Your task to perform on an android device: turn on the 24-hour format for clock Image 0: 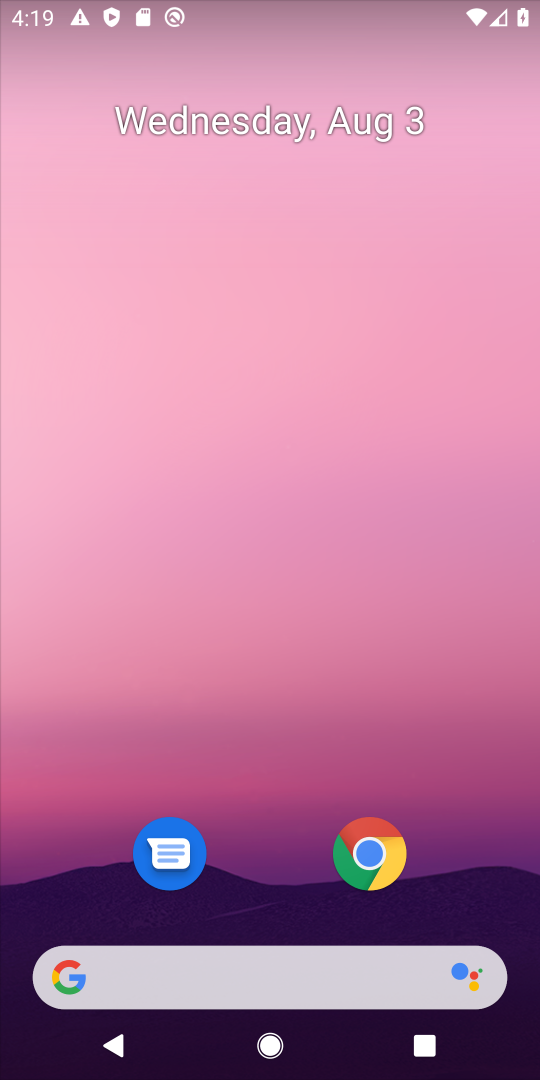
Step 0: drag from (261, 845) to (256, 15)
Your task to perform on an android device: turn on the 24-hour format for clock Image 1: 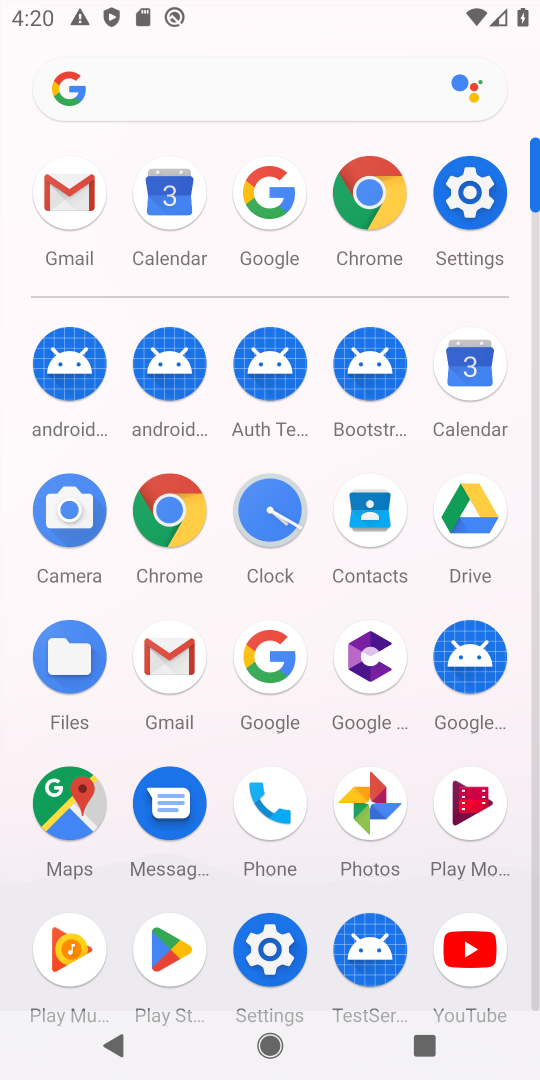
Step 1: click (264, 513)
Your task to perform on an android device: turn on the 24-hour format for clock Image 2: 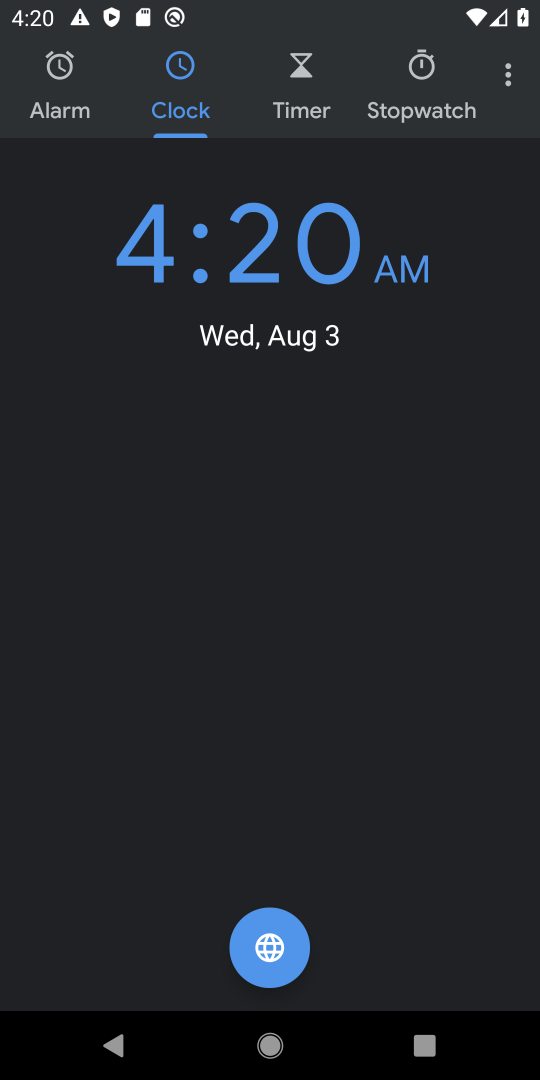
Step 2: click (508, 79)
Your task to perform on an android device: turn on the 24-hour format for clock Image 3: 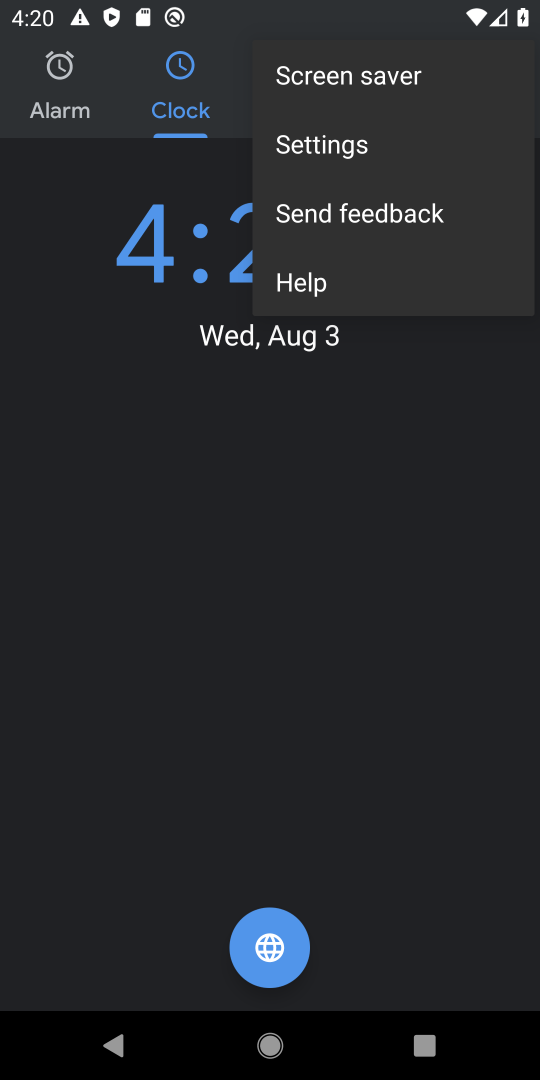
Step 3: click (338, 144)
Your task to perform on an android device: turn on the 24-hour format for clock Image 4: 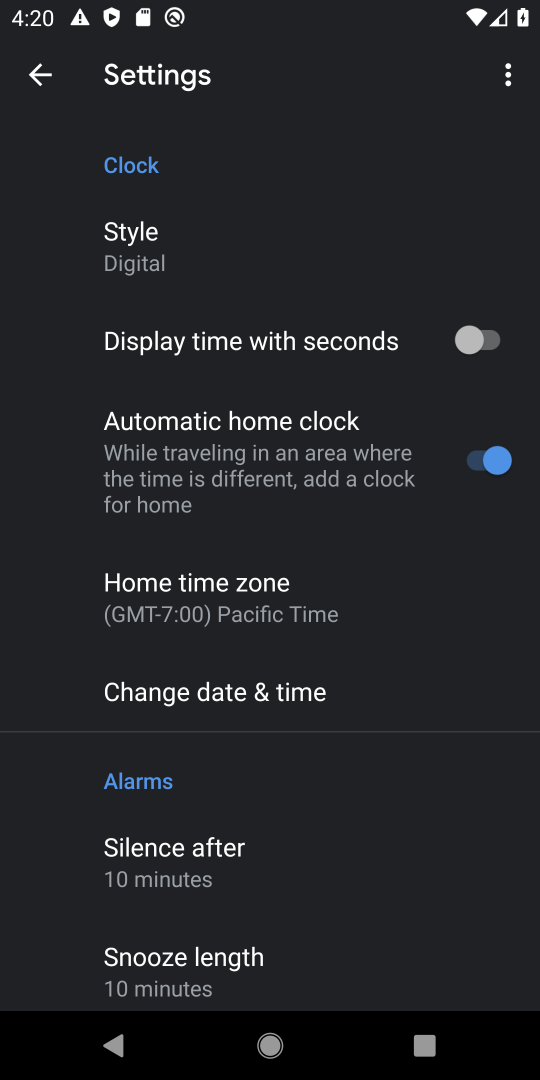
Step 4: click (297, 694)
Your task to perform on an android device: turn on the 24-hour format for clock Image 5: 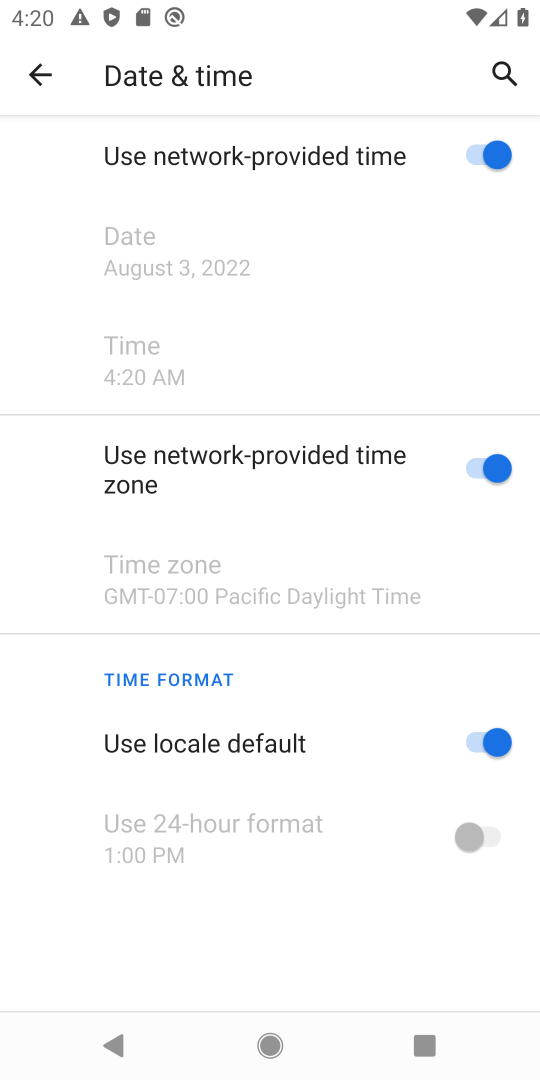
Step 5: click (490, 733)
Your task to perform on an android device: turn on the 24-hour format for clock Image 6: 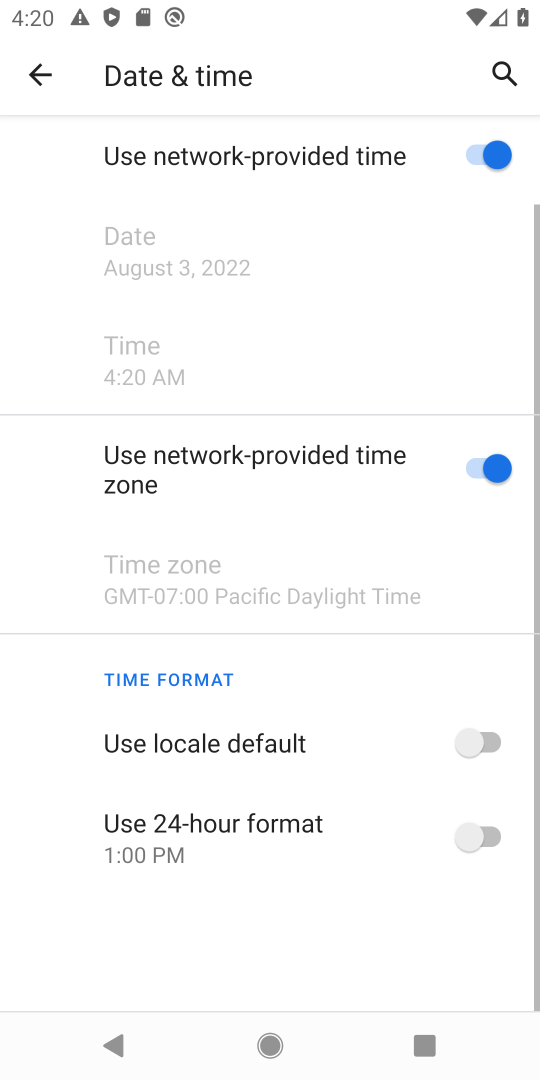
Step 6: click (488, 844)
Your task to perform on an android device: turn on the 24-hour format for clock Image 7: 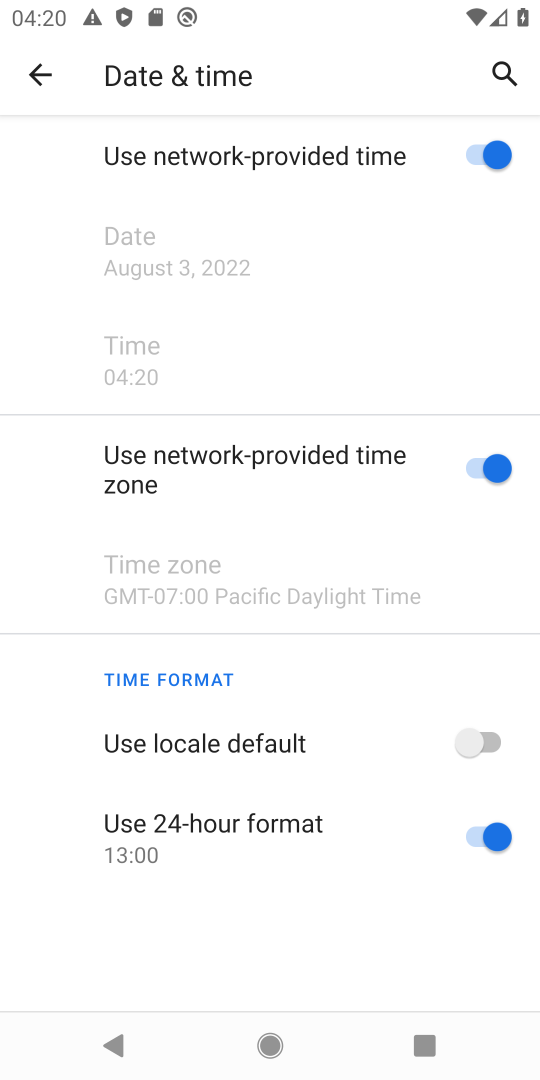
Step 7: task complete